Your task to perform on an android device: see creations saved in the google photos Image 0: 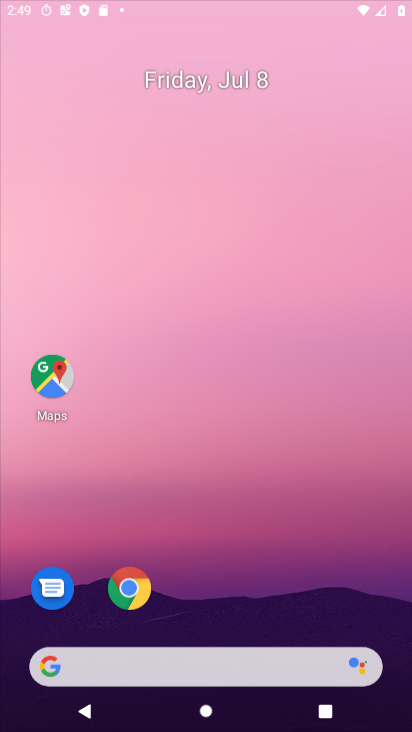
Step 0: press home button
Your task to perform on an android device: see creations saved in the google photos Image 1: 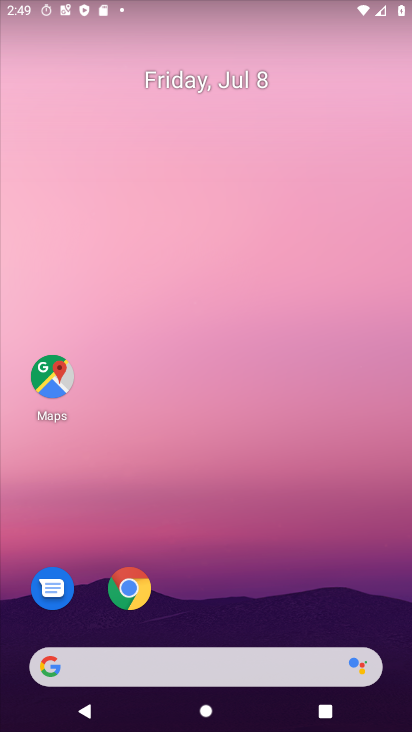
Step 1: drag from (214, 614) to (229, 162)
Your task to perform on an android device: see creations saved in the google photos Image 2: 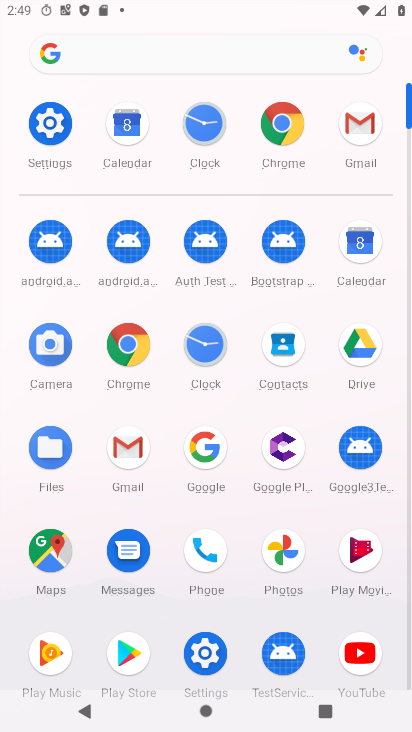
Step 2: click (282, 546)
Your task to perform on an android device: see creations saved in the google photos Image 3: 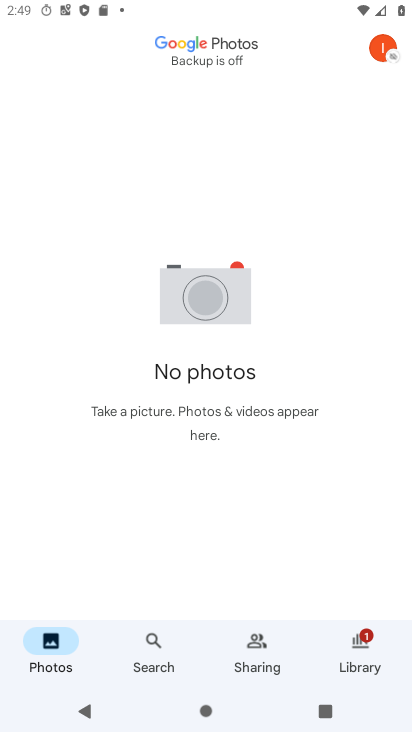
Step 3: click (146, 633)
Your task to perform on an android device: see creations saved in the google photos Image 4: 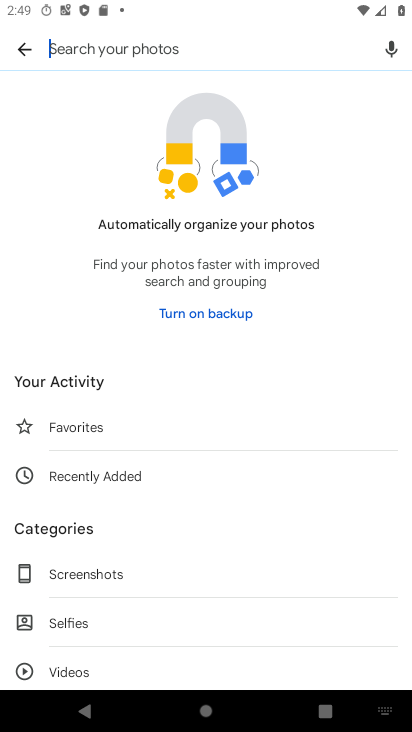
Step 4: drag from (220, 634) to (236, 256)
Your task to perform on an android device: see creations saved in the google photos Image 5: 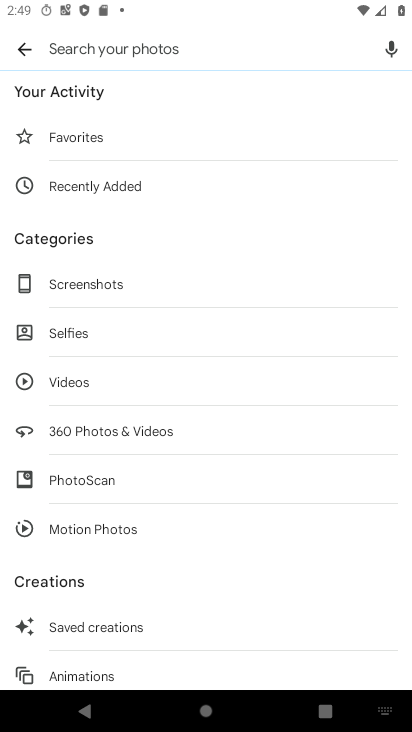
Step 5: click (97, 629)
Your task to perform on an android device: see creations saved in the google photos Image 6: 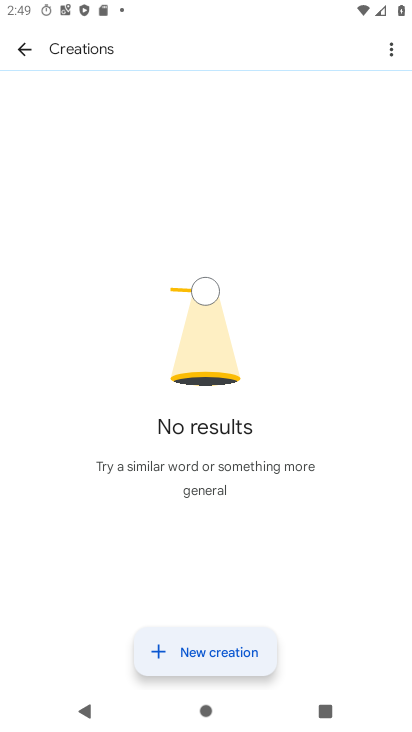
Step 6: task complete